Your task to perform on an android device: turn on notifications settings in the gmail app Image 0: 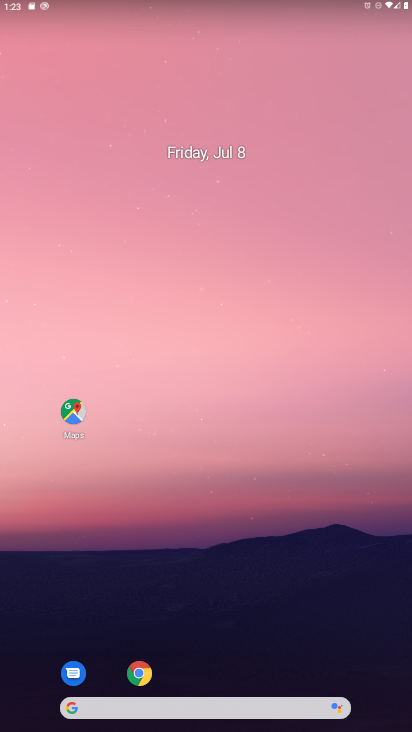
Step 0: drag from (365, 689) to (289, 171)
Your task to perform on an android device: turn on notifications settings in the gmail app Image 1: 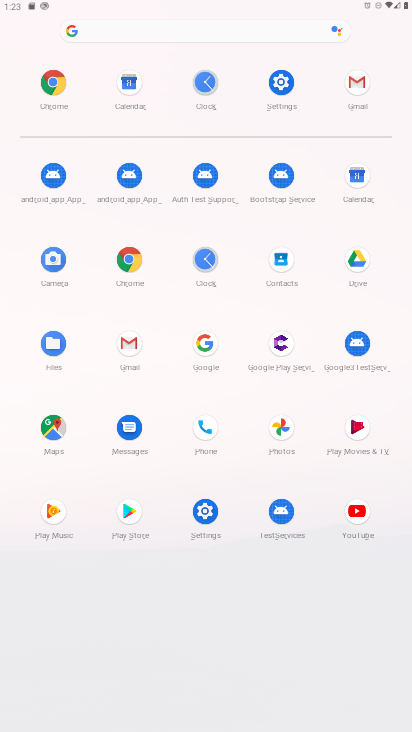
Step 1: click (137, 352)
Your task to perform on an android device: turn on notifications settings in the gmail app Image 2: 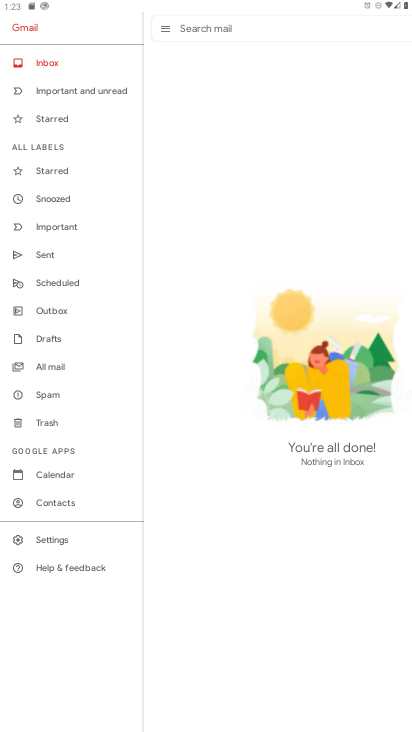
Step 2: click (61, 540)
Your task to perform on an android device: turn on notifications settings in the gmail app Image 3: 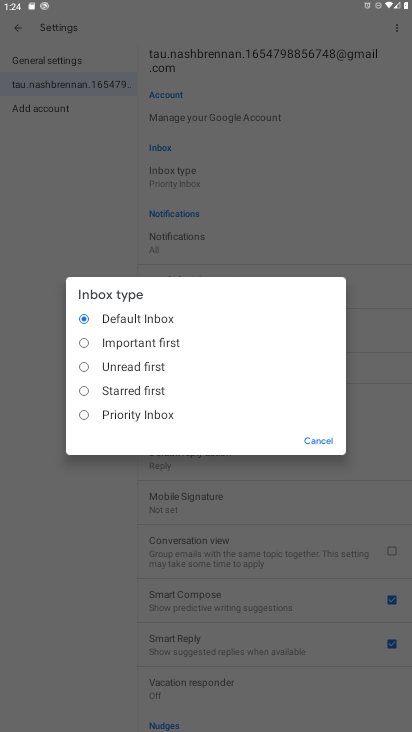
Step 3: press back button
Your task to perform on an android device: turn on notifications settings in the gmail app Image 4: 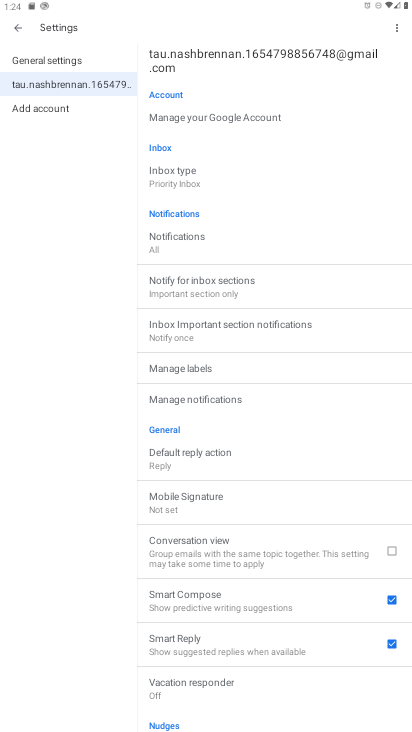
Step 4: click (164, 238)
Your task to perform on an android device: turn on notifications settings in the gmail app Image 5: 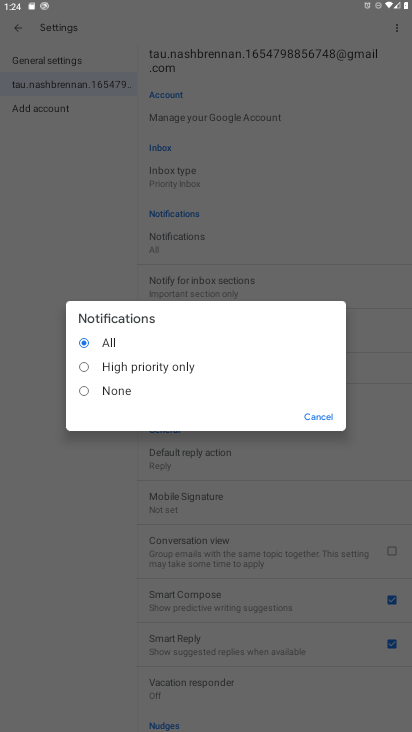
Step 5: task complete